Your task to perform on an android device: What's the weather going to be this weekend? Image 0: 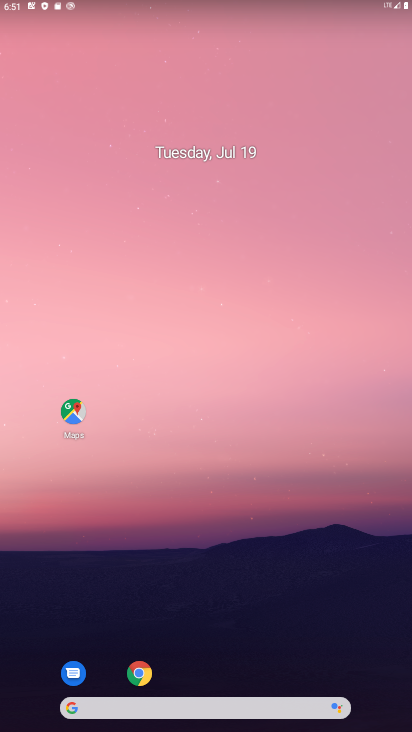
Step 0: drag from (385, 676) to (236, 64)
Your task to perform on an android device: What's the weather going to be this weekend? Image 1: 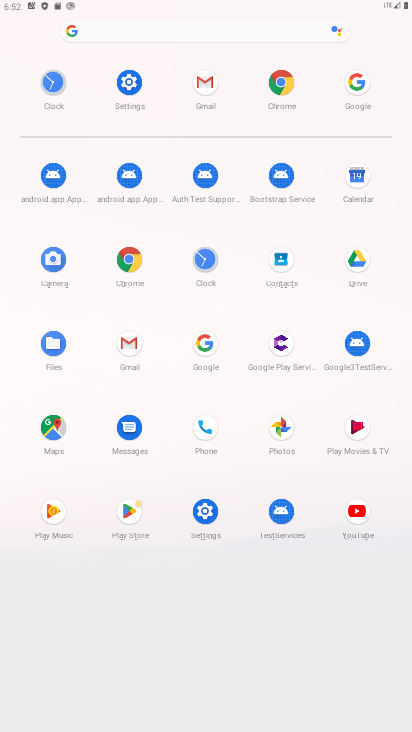
Step 1: click (202, 355)
Your task to perform on an android device: What's the weather going to be this weekend? Image 2: 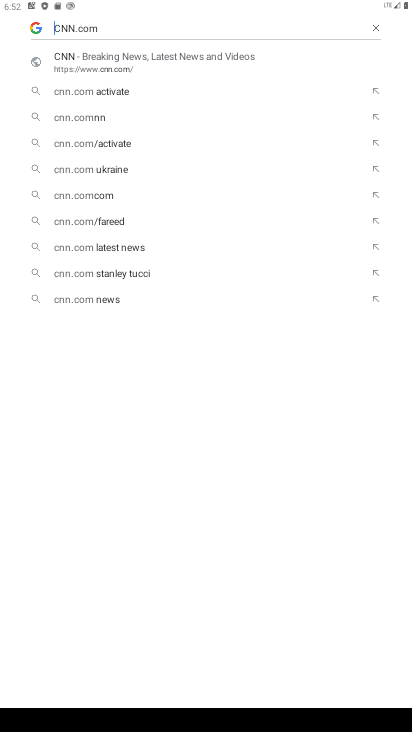
Step 2: click (367, 27)
Your task to perform on an android device: What's the weather going to be this weekend? Image 3: 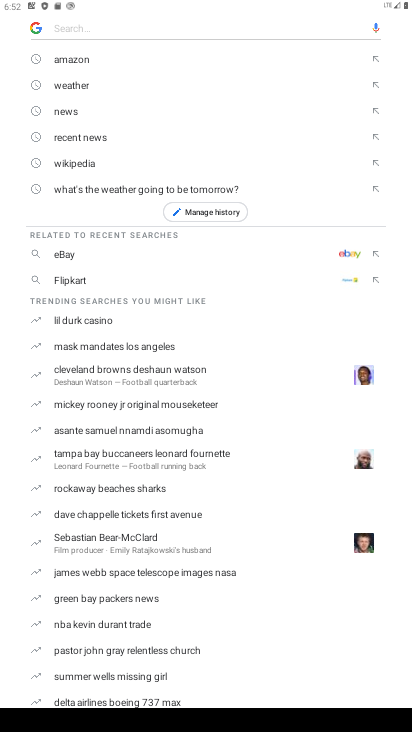
Step 3: type "What's the weather going to be this weekend?"
Your task to perform on an android device: What's the weather going to be this weekend? Image 4: 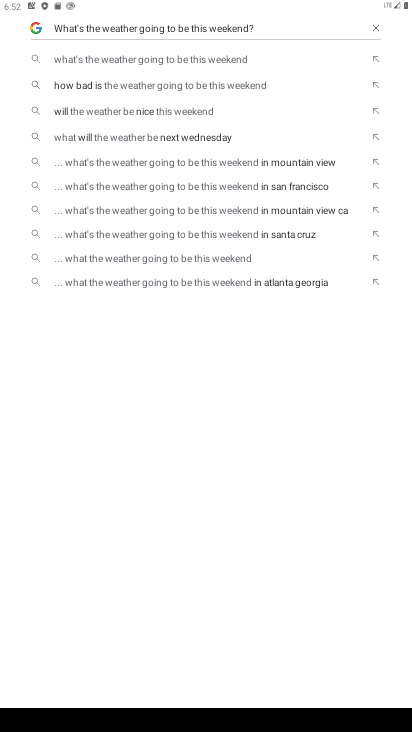
Step 4: click (143, 60)
Your task to perform on an android device: What's the weather going to be this weekend? Image 5: 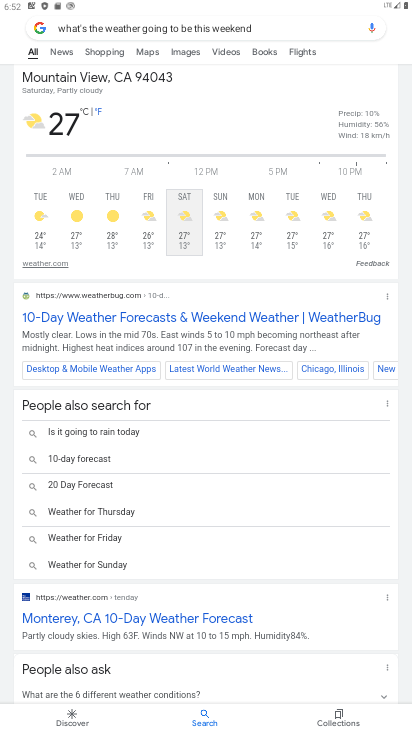
Step 5: task complete